Your task to perform on an android device: Open calendar and show me the second week of next month Image 0: 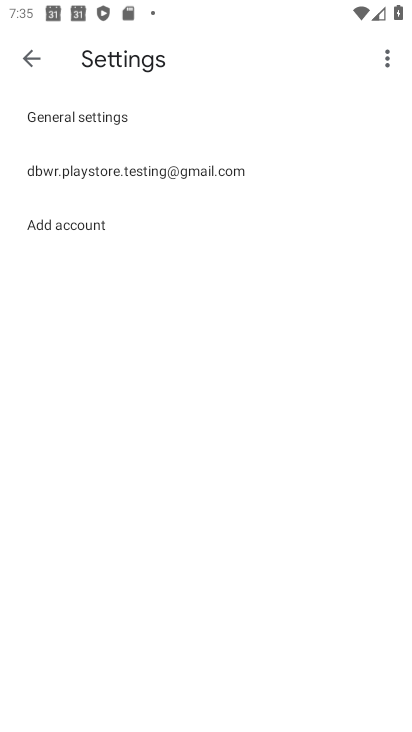
Step 0: press home button
Your task to perform on an android device: Open calendar and show me the second week of next month Image 1: 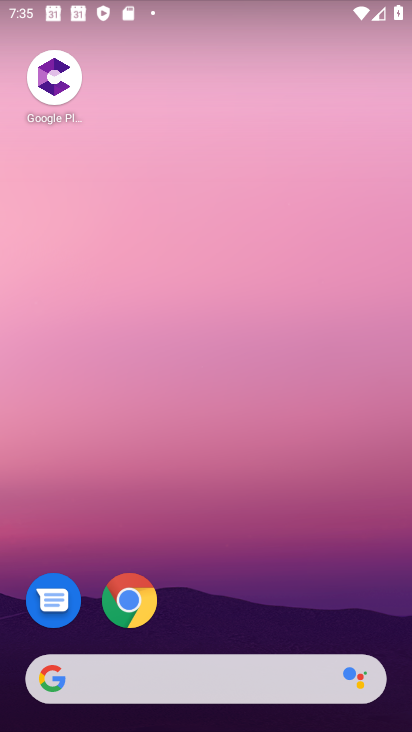
Step 1: drag from (209, 647) to (172, 3)
Your task to perform on an android device: Open calendar and show me the second week of next month Image 2: 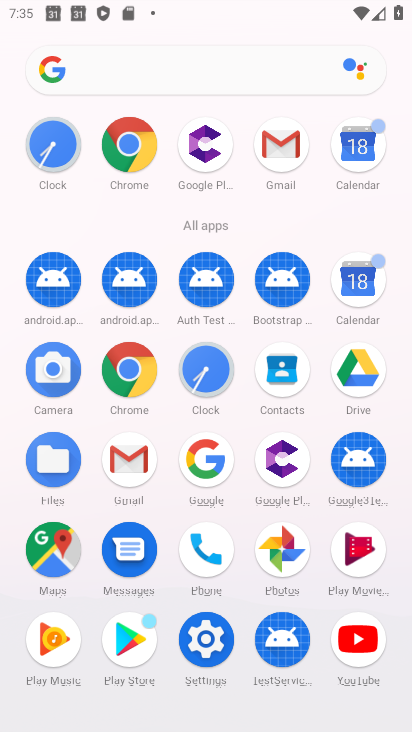
Step 2: click (346, 151)
Your task to perform on an android device: Open calendar and show me the second week of next month Image 3: 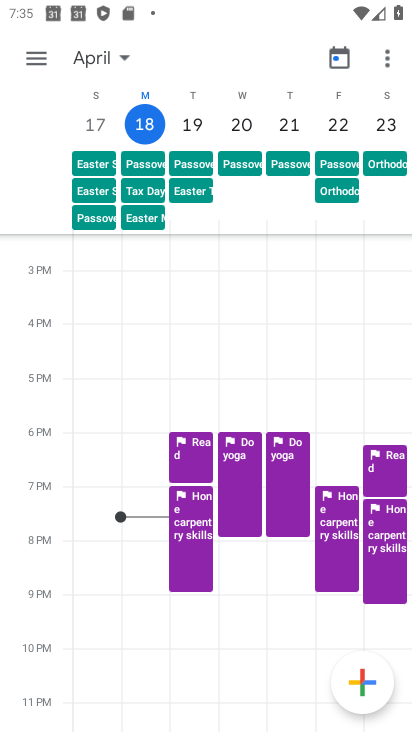
Step 3: task complete